Your task to perform on an android device: turn off data saver in the chrome app Image 0: 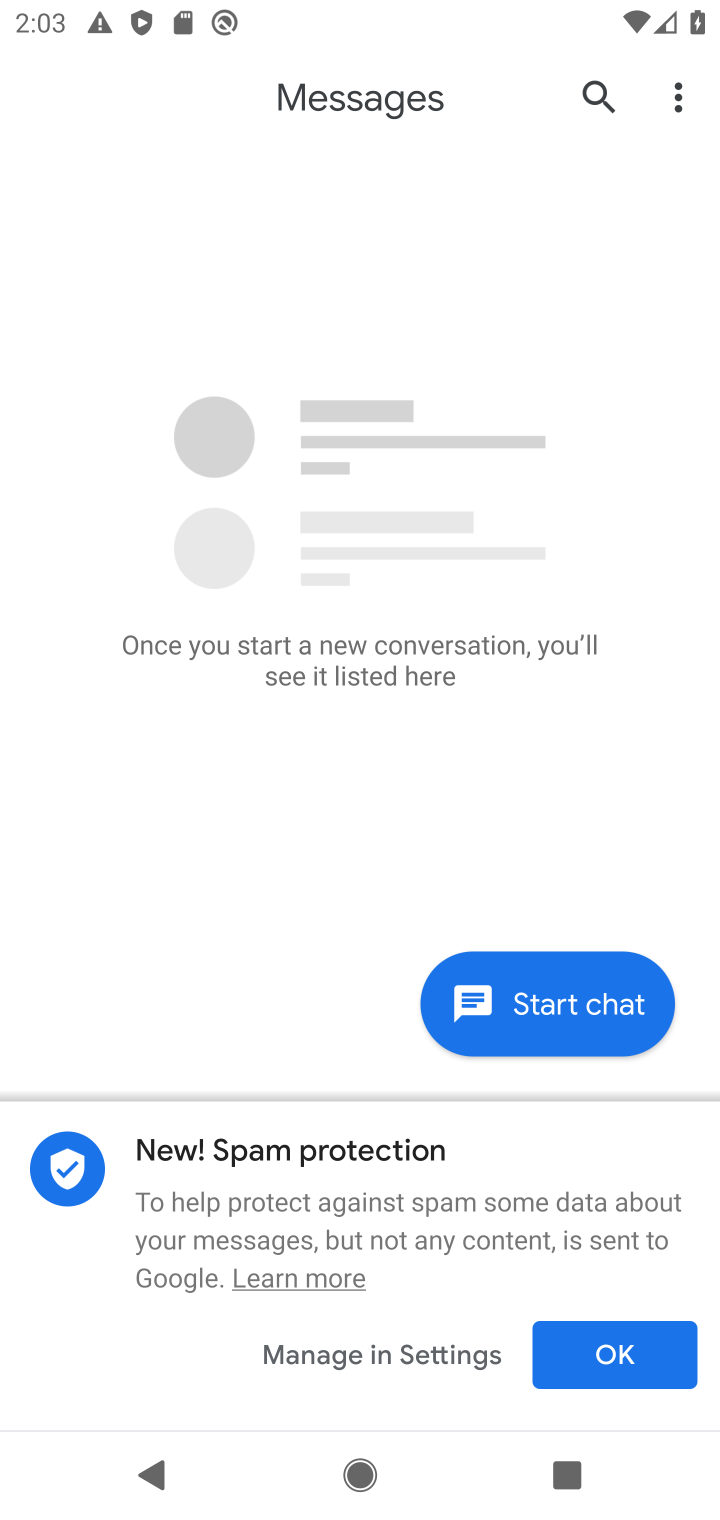
Step 0: press home button
Your task to perform on an android device: turn off data saver in the chrome app Image 1: 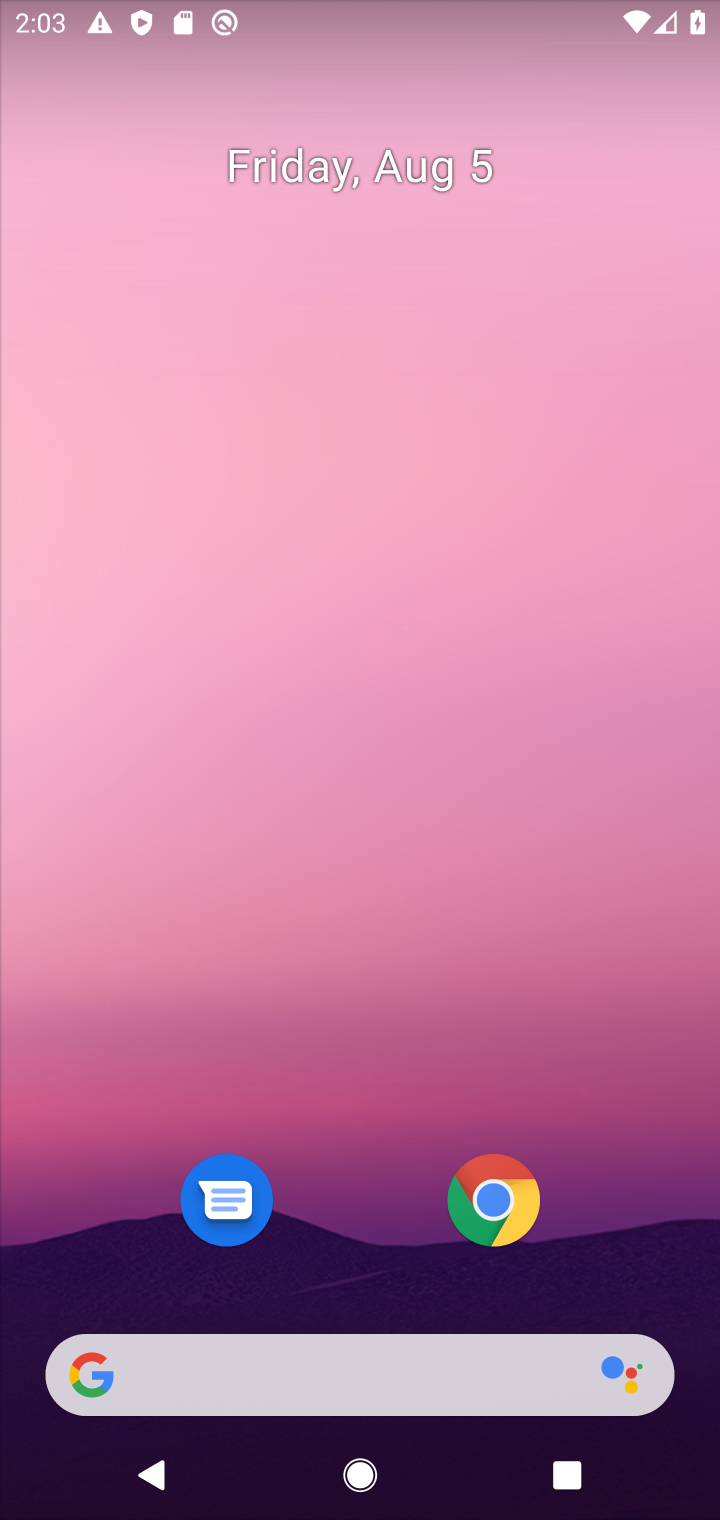
Step 1: click (498, 1189)
Your task to perform on an android device: turn off data saver in the chrome app Image 2: 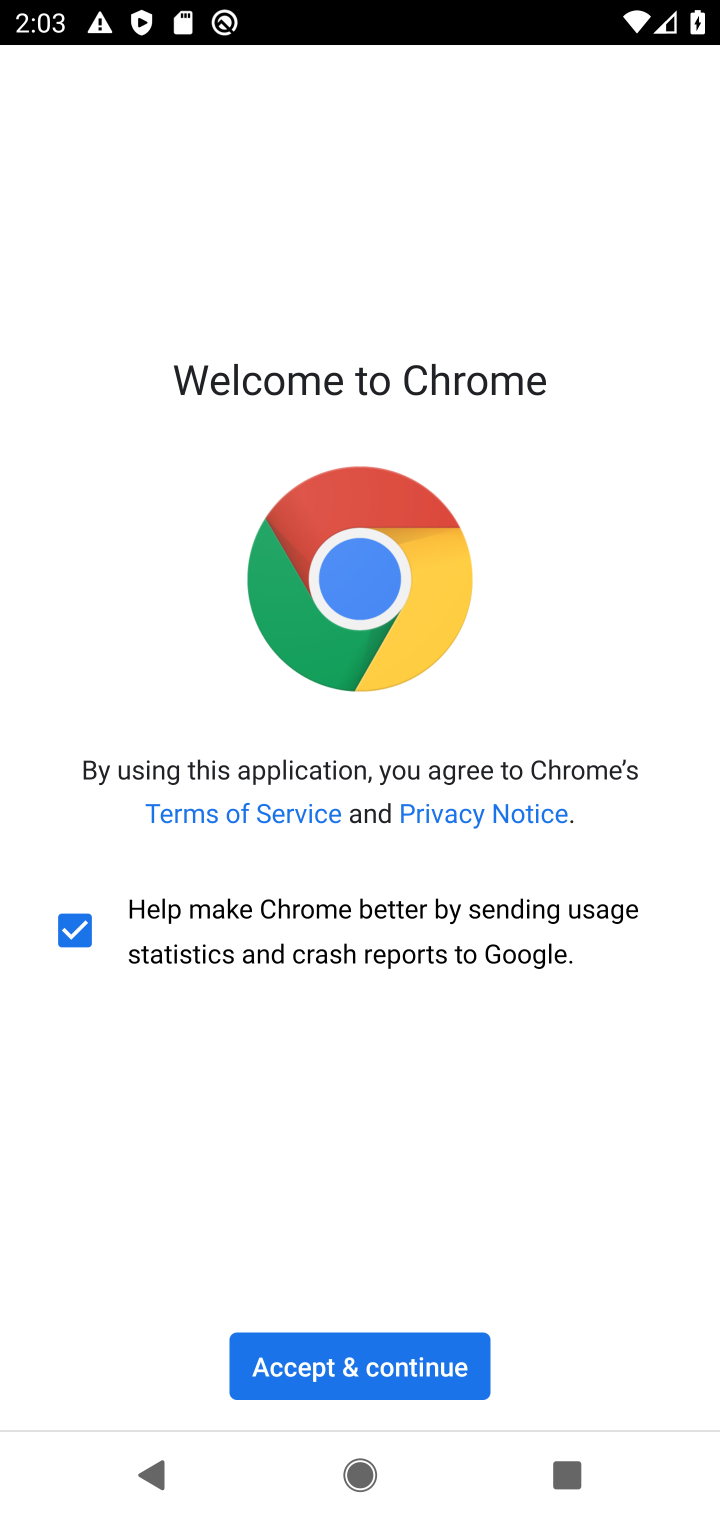
Step 2: click (344, 1382)
Your task to perform on an android device: turn off data saver in the chrome app Image 3: 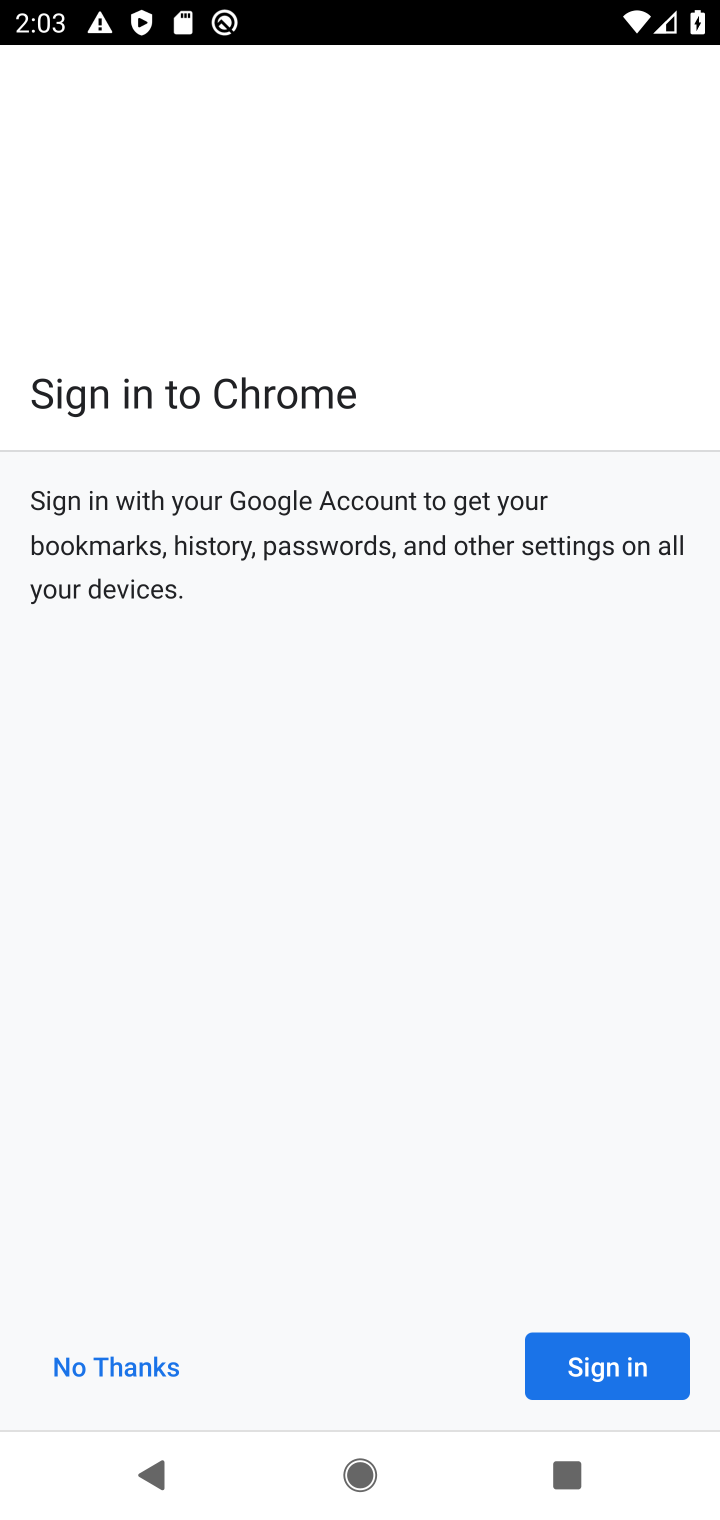
Step 3: click (670, 1366)
Your task to perform on an android device: turn off data saver in the chrome app Image 4: 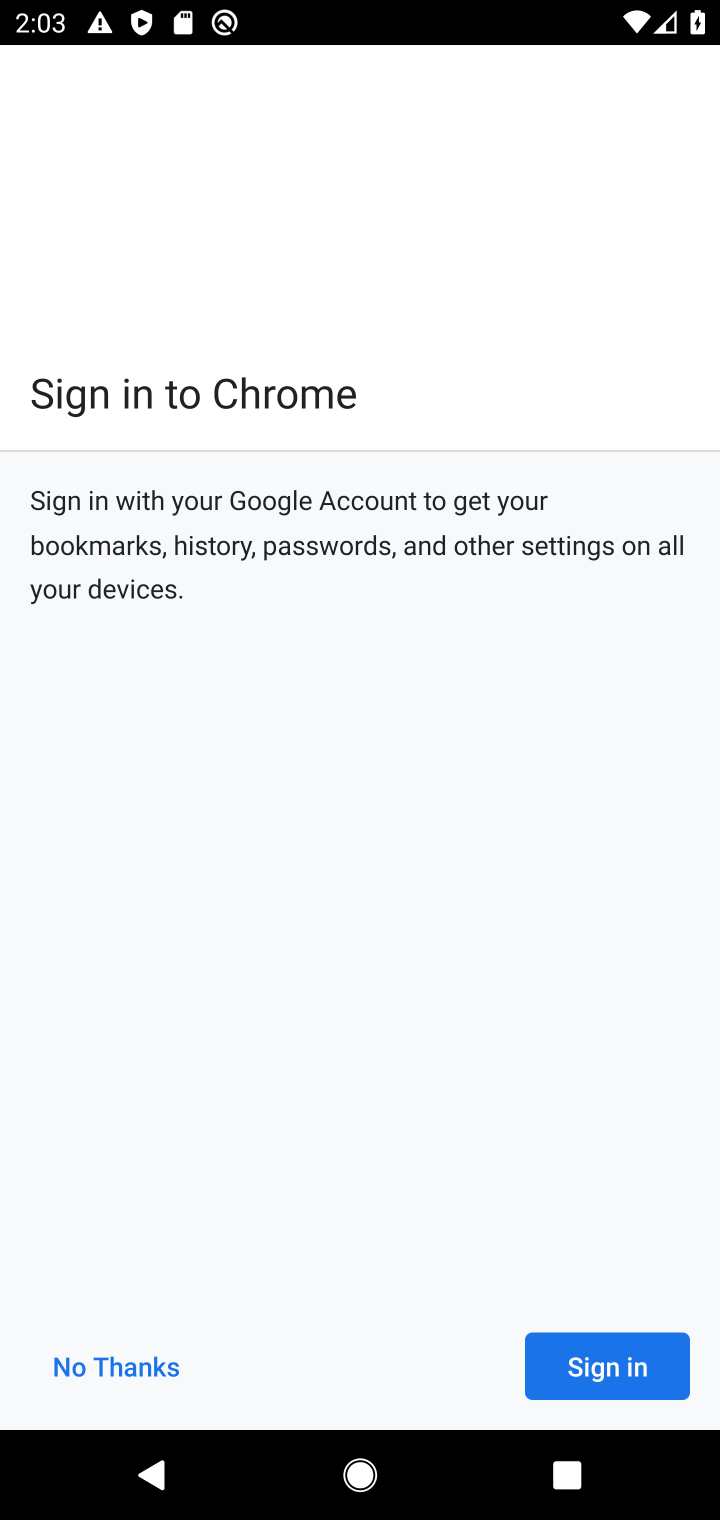
Step 4: click (622, 1358)
Your task to perform on an android device: turn off data saver in the chrome app Image 5: 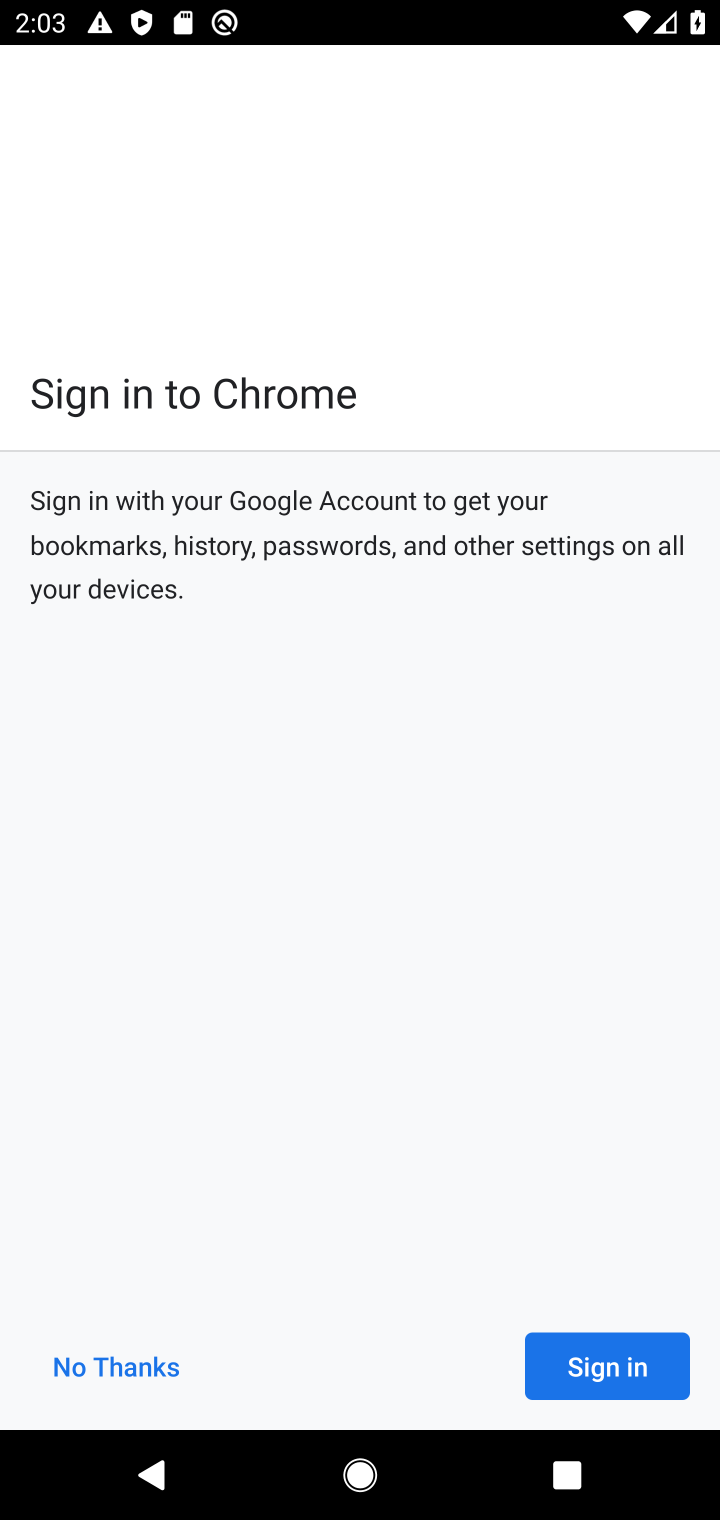
Step 5: click (622, 1358)
Your task to perform on an android device: turn off data saver in the chrome app Image 6: 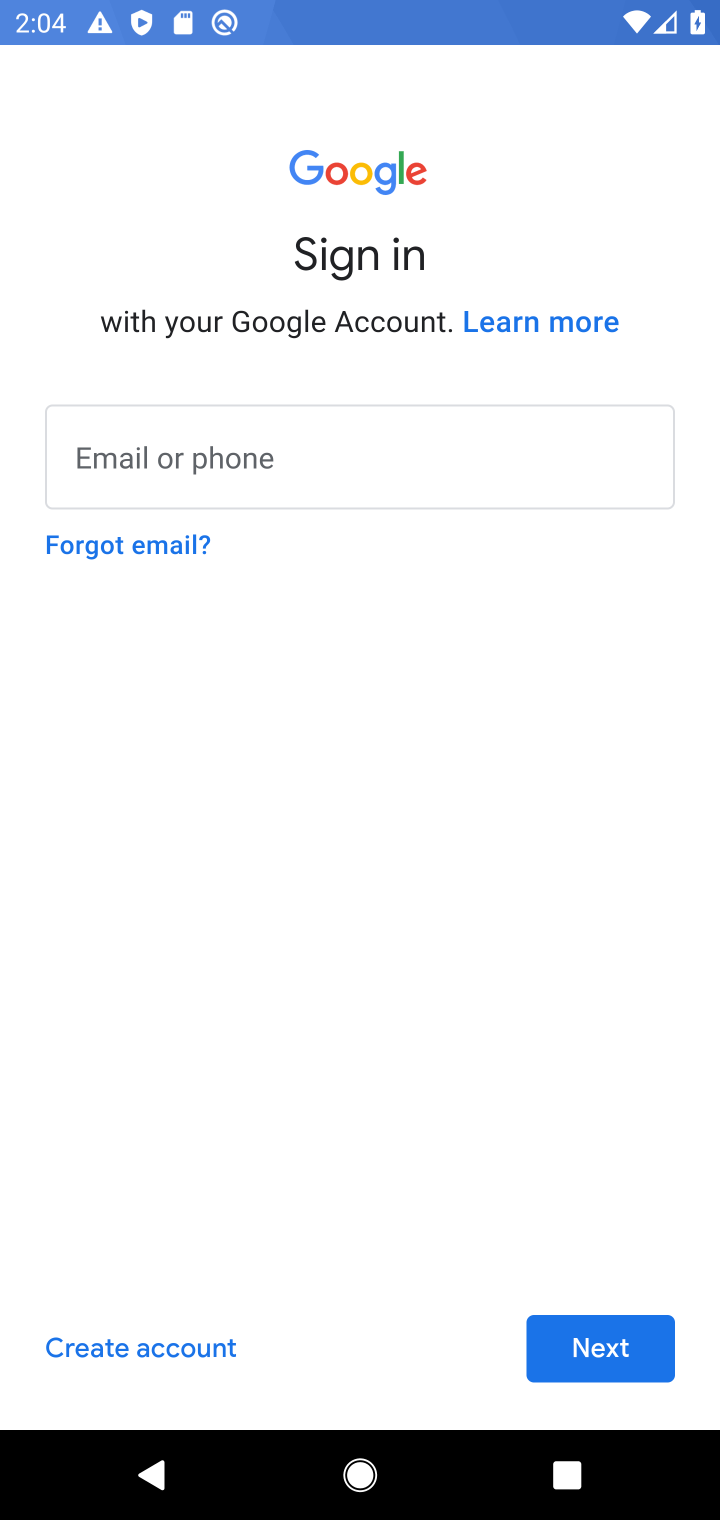
Step 6: click (599, 1341)
Your task to perform on an android device: turn off data saver in the chrome app Image 7: 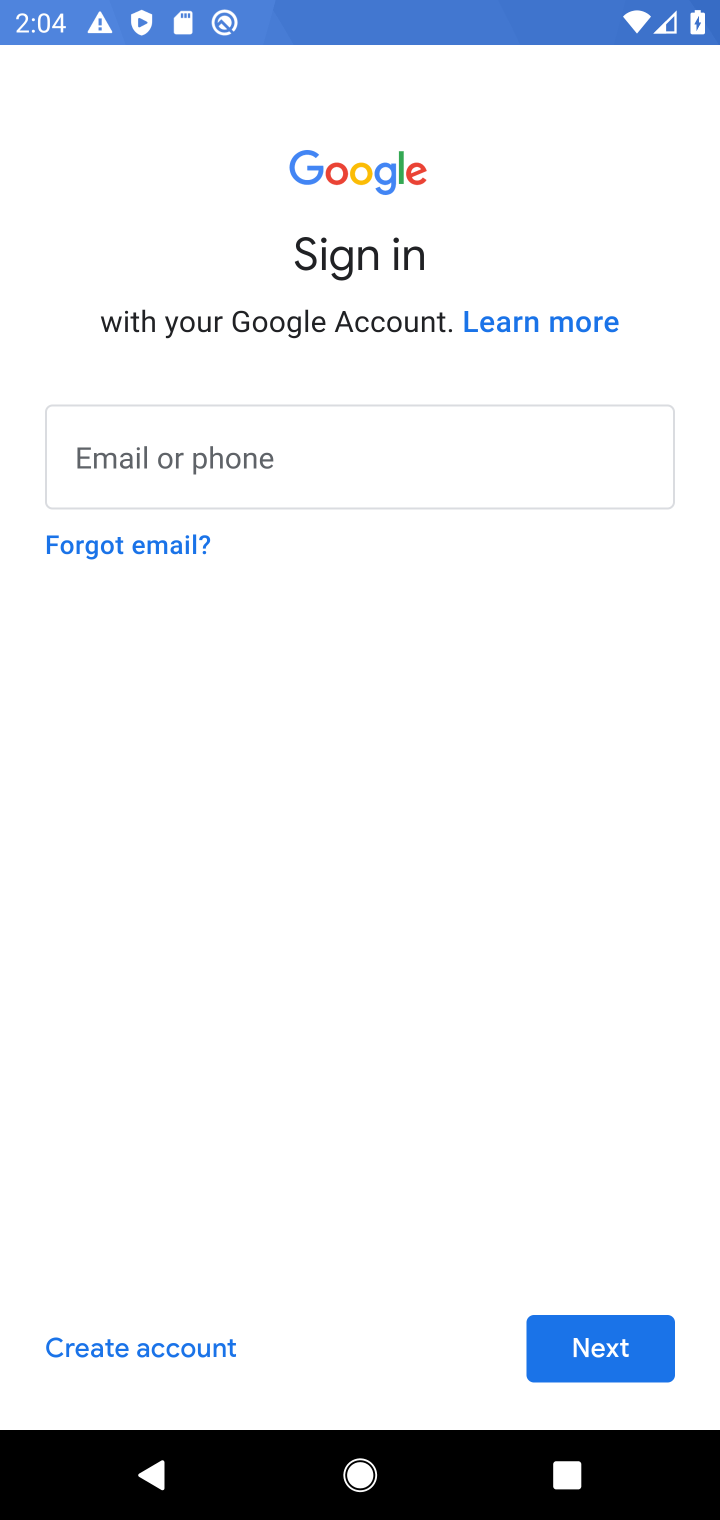
Step 7: task complete